Your task to perform on an android device: Open Google Chrome Image 0: 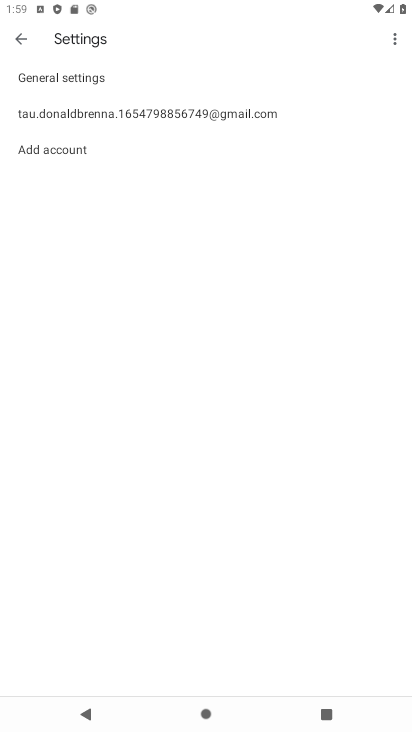
Step 0: press home button
Your task to perform on an android device: Open Google Chrome Image 1: 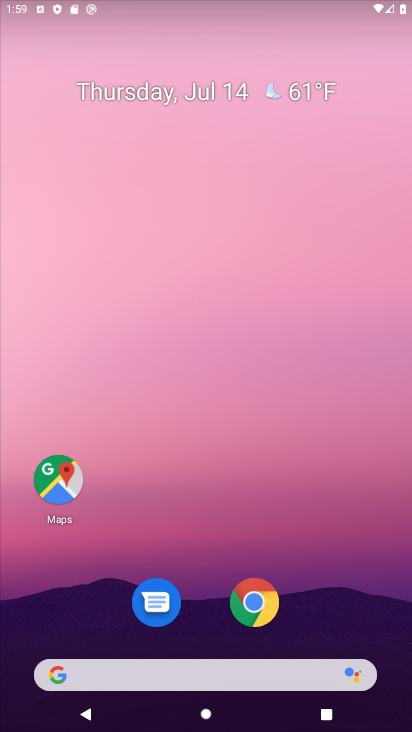
Step 1: drag from (185, 670) to (269, 197)
Your task to perform on an android device: Open Google Chrome Image 2: 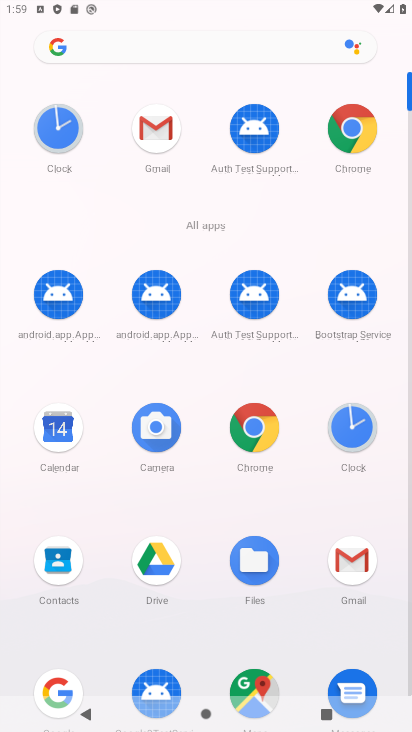
Step 2: click (353, 126)
Your task to perform on an android device: Open Google Chrome Image 3: 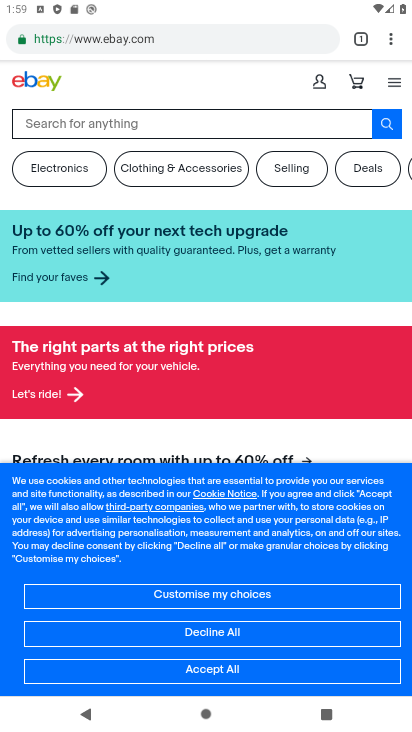
Step 3: click (357, 40)
Your task to perform on an android device: Open Google Chrome Image 4: 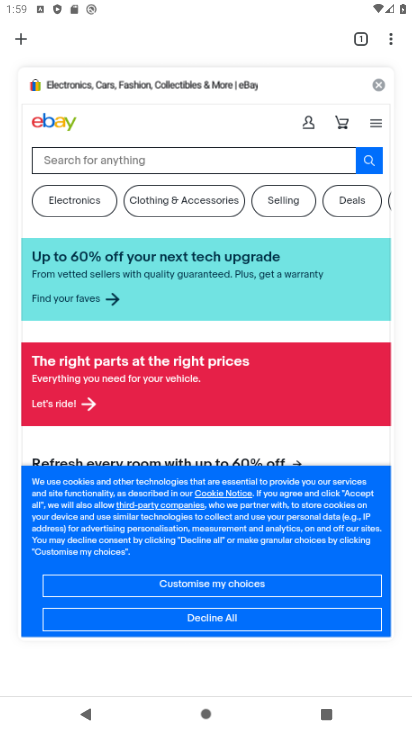
Step 4: click (372, 84)
Your task to perform on an android device: Open Google Chrome Image 5: 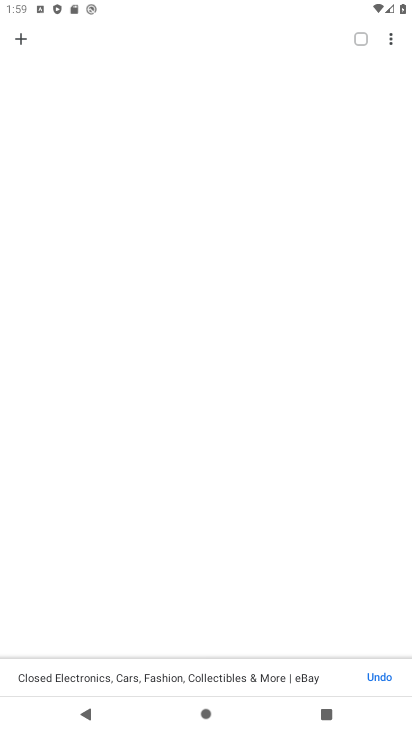
Step 5: click (23, 38)
Your task to perform on an android device: Open Google Chrome Image 6: 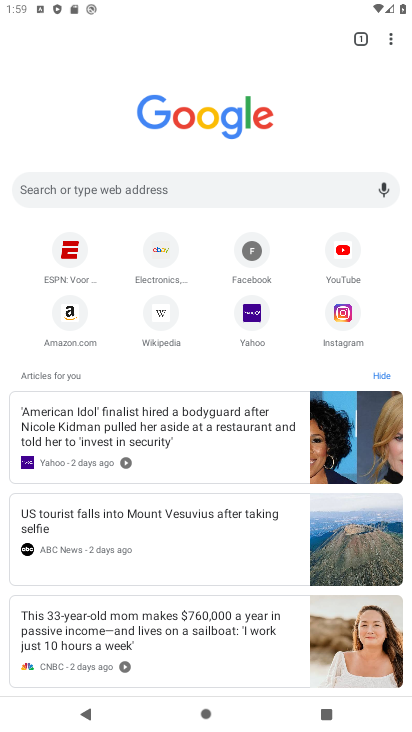
Step 6: task complete